Your task to perform on an android device: snooze an email in the gmail app Image 0: 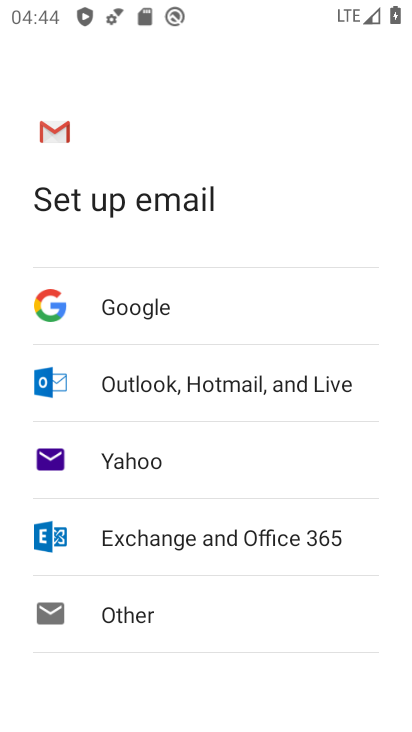
Step 0: press home button
Your task to perform on an android device: snooze an email in the gmail app Image 1: 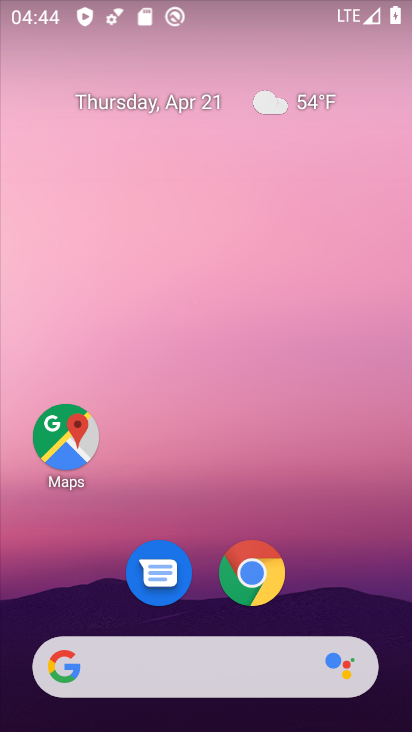
Step 1: drag from (372, 612) to (308, 141)
Your task to perform on an android device: snooze an email in the gmail app Image 2: 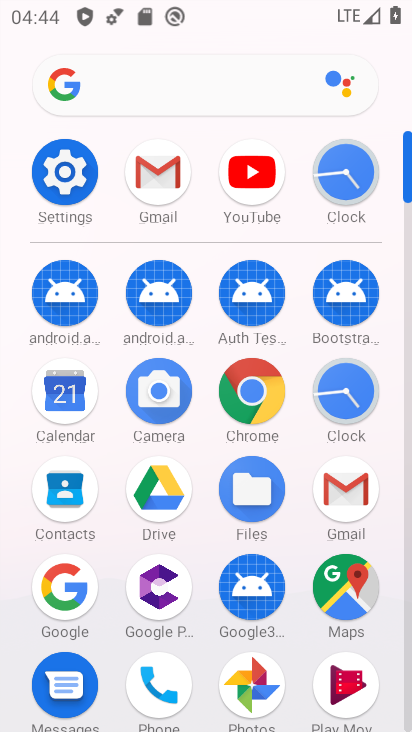
Step 2: click (408, 652)
Your task to perform on an android device: snooze an email in the gmail app Image 3: 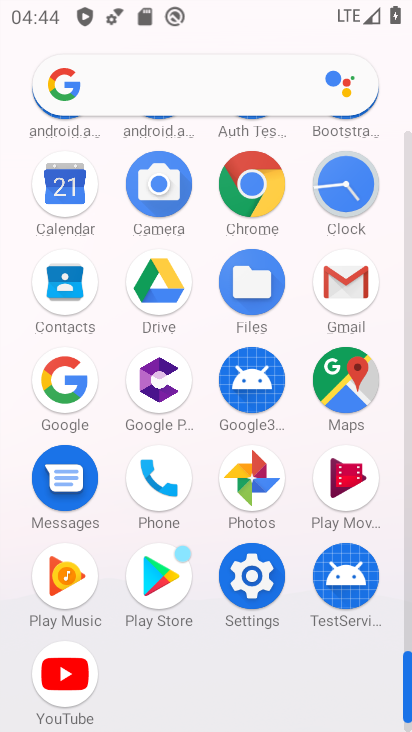
Step 3: click (343, 279)
Your task to perform on an android device: snooze an email in the gmail app Image 4: 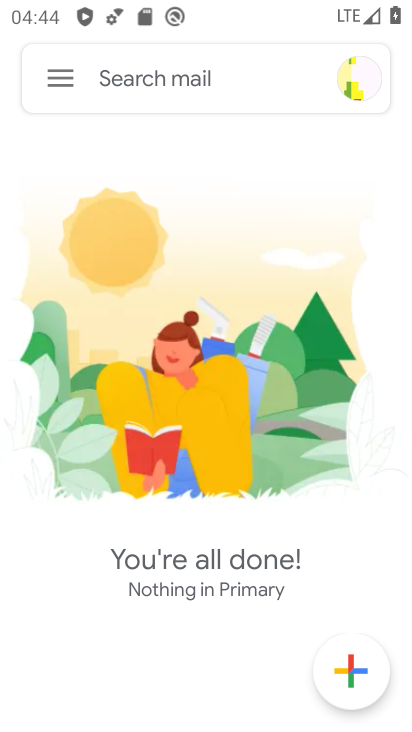
Step 4: click (60, 80)
Your task to perform on an android device: snooze an email in the gmail app Image 5: 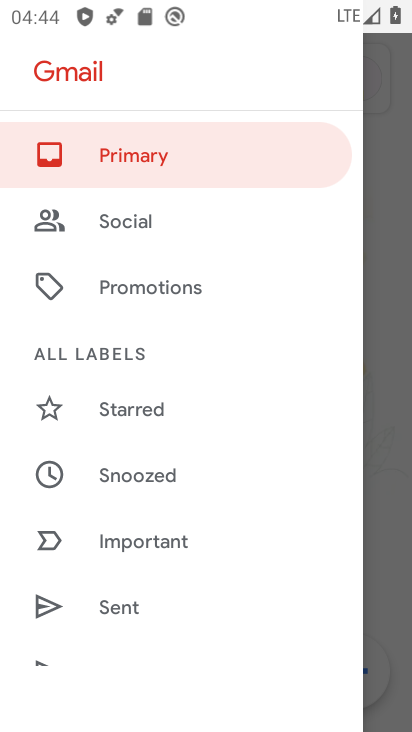
Step 5: click (144, 150)
Your task to perform on an android device: snooze an email in the gmail app Image 6: 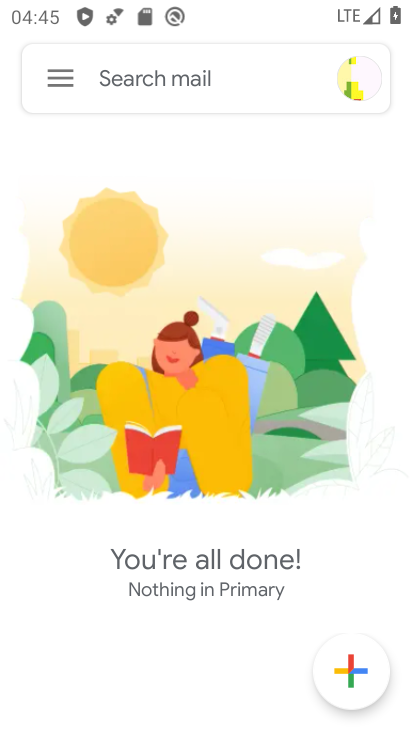
Step 6: task complete